Your task to perform on an android device: check data usage Image 0: 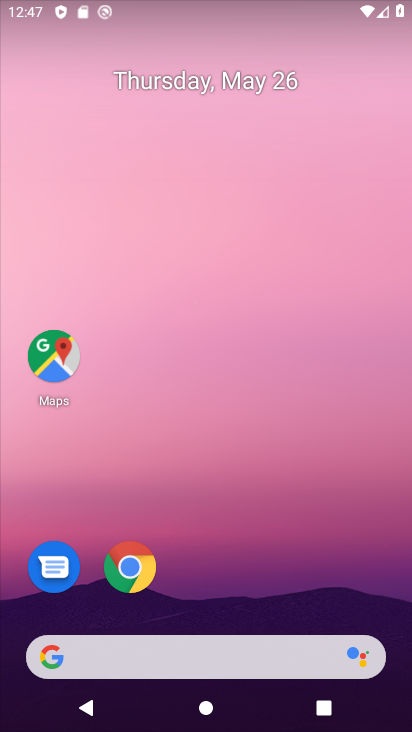
Step 0: drag from (243, 594) to (253, 66)
Your task to perform on an android device: check data usage Image 1: 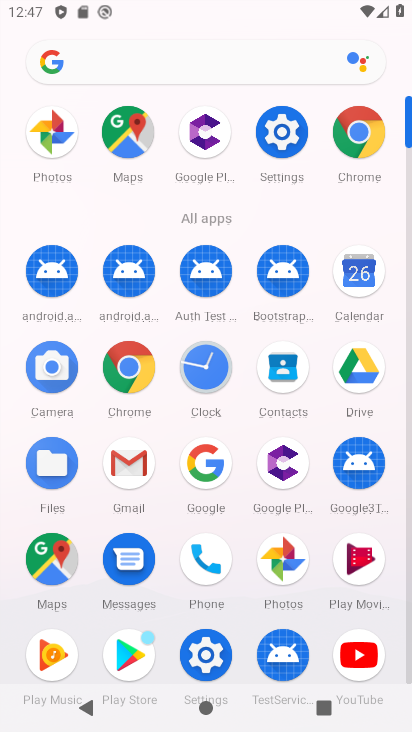
Step 1: click (281, 130)
Your task to perform on an android device: check data usage Image 2: 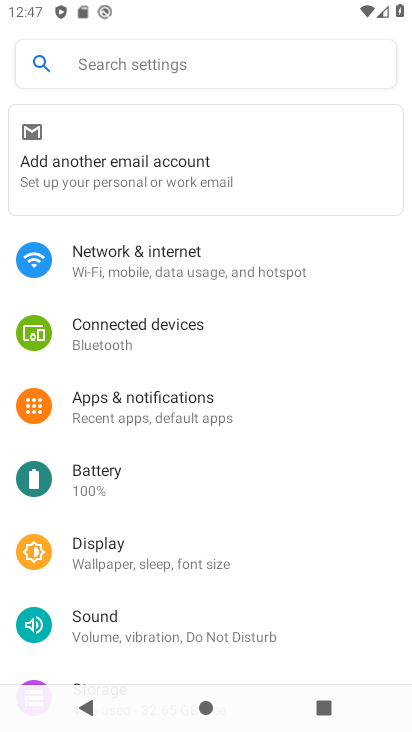
Step 2: click (179, 247)
Your task to perform on an android device: check data usage Image 3: 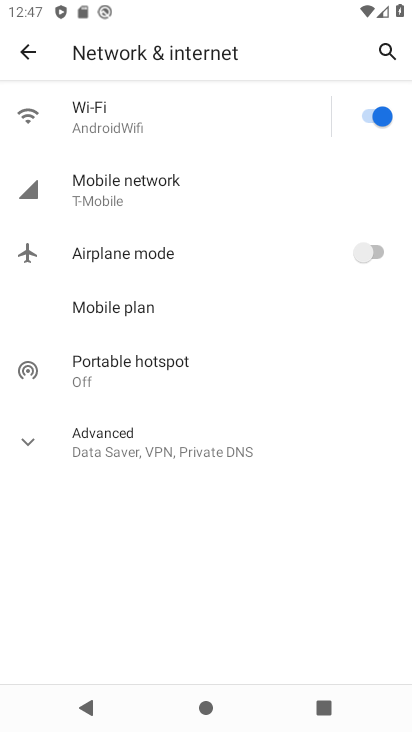
Step 3: click (132, 194)
Your task to perform on an android device: check data usage Image 4: 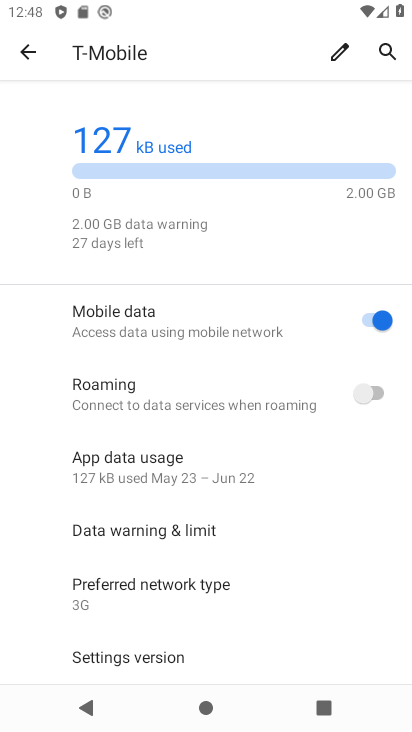
Step 4: task complete